Your task to perform on an android device: change the clock display to show seconds Image 0: 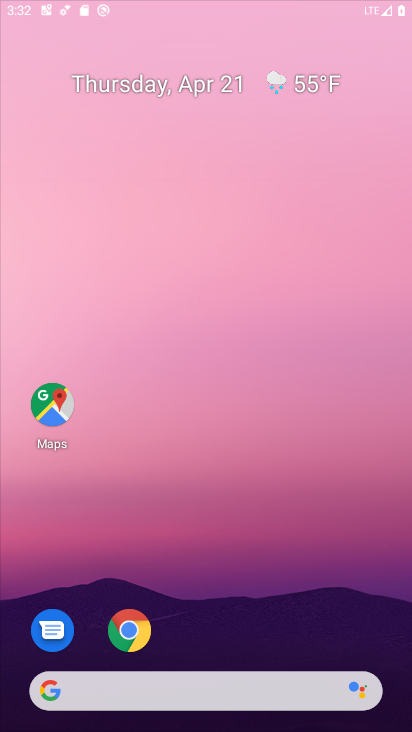
Step 0: click (132, 636)
Your task to perform on an android device: change the clock display to show seconds Image 1: 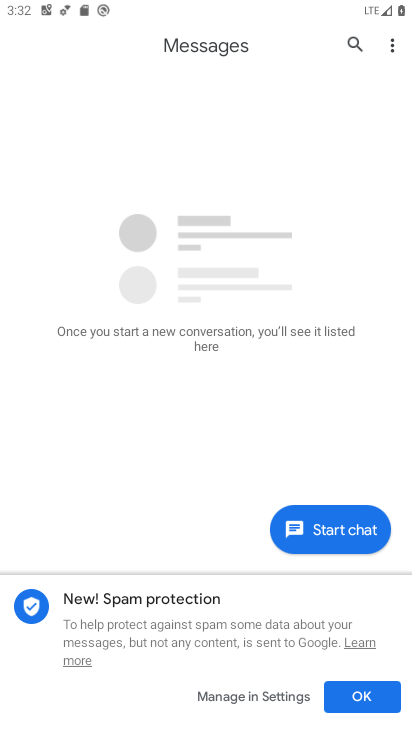
Step 1: press back button
Your task to perform on an android device: change the clock display to show seconds Image 2: 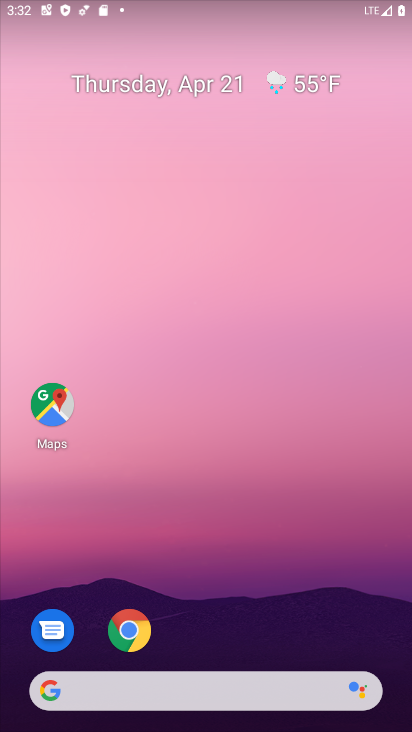
Step 2: drag from (198, 644) to (262, 100)
Your task to perform on an android device: change the clock display to show seconds Image 3: 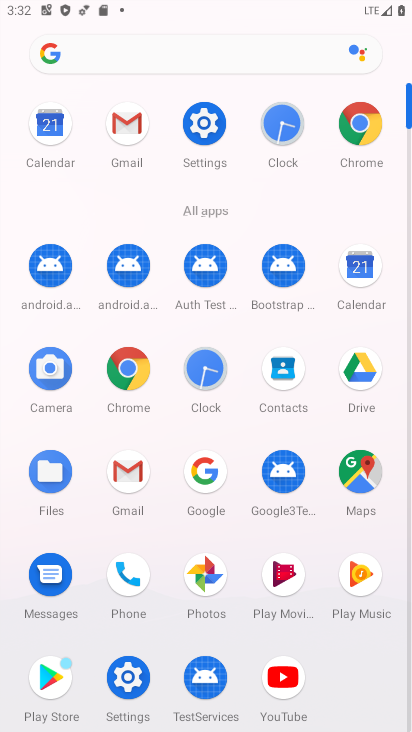
Step 3: click (295, 117)
Your task to perform on an android device: change the clock display to show seconds Image 4: 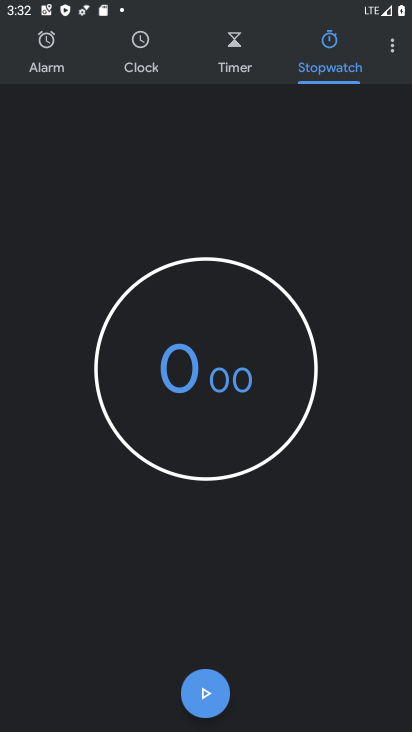
Step 4: click (388, 40)
Your task to perform on an android device: change the clock display to show seconds Image 5: 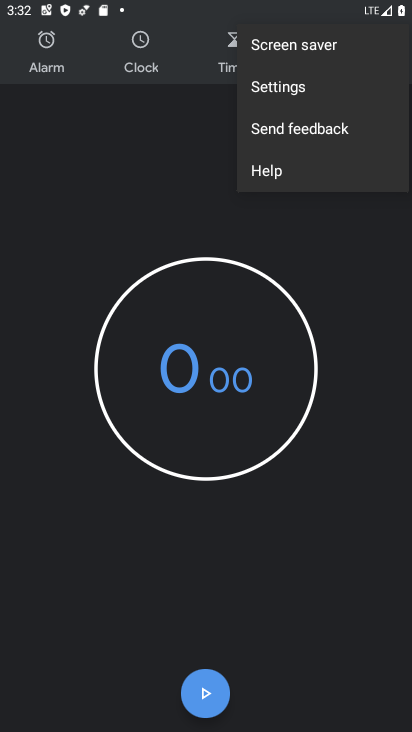
Step 5: click (278, 90)
Your task to perform on an android device: change the clock display to show seconds Image 6: 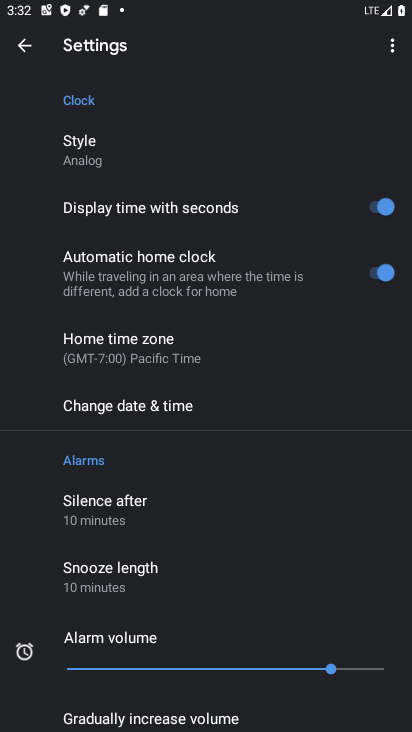
Step 6: click (135, 149)
Your task to perform on an android device: change the clock display to show seconds Image 7: 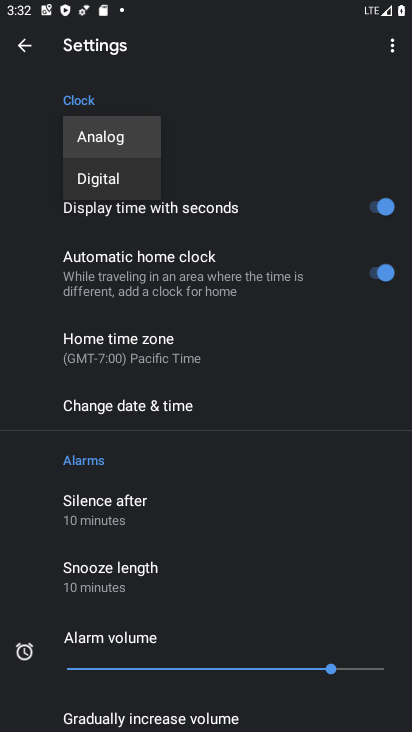
Step 7: click (132, 176)
Your task to perform on an android device: change the clock display to show seconds Image 8: 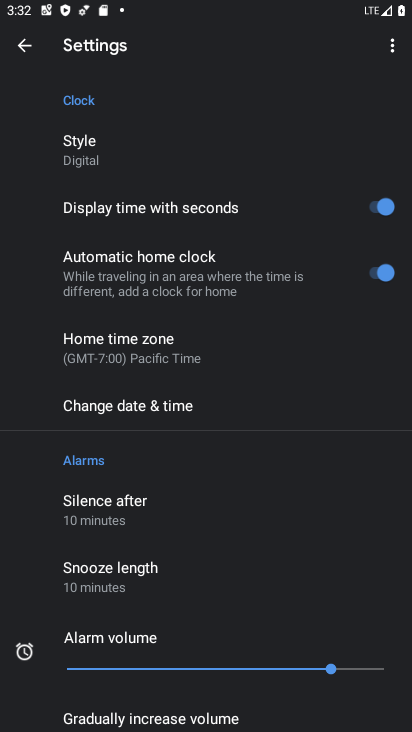
Step 8: task complete